Your task to perform on an android device: delete location history Image 0: 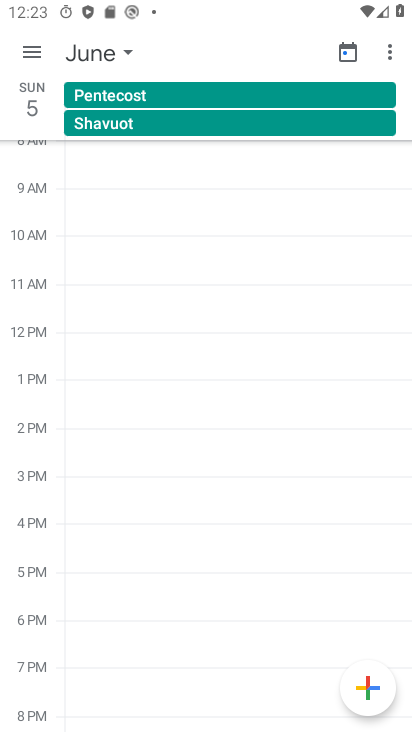
Step 0: press home button
Your task to perform on an android device: delete location history Image 1: 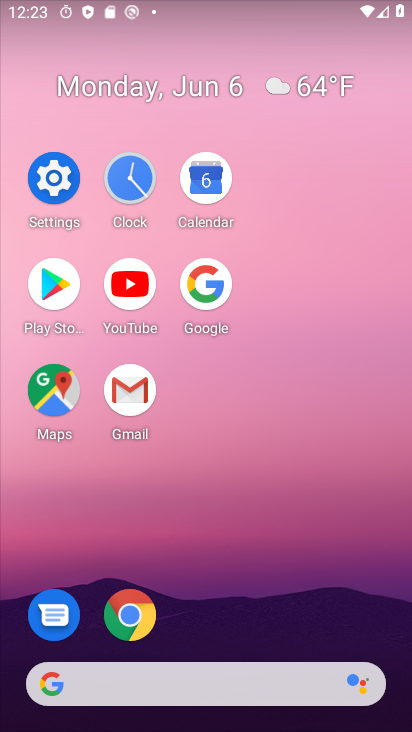
Step 1: click (55, 182)
Your task to perform on an android device: delete location history Image 2: 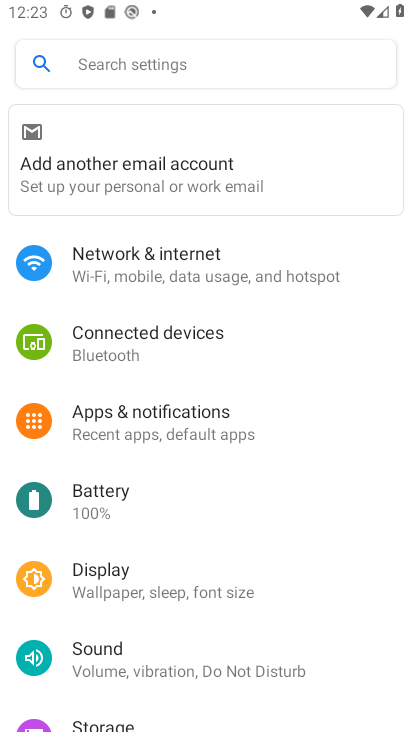
Step 2: drag from (194, 568) to (187, 238)
Your task to perform on an android device: delete location history Image 3: 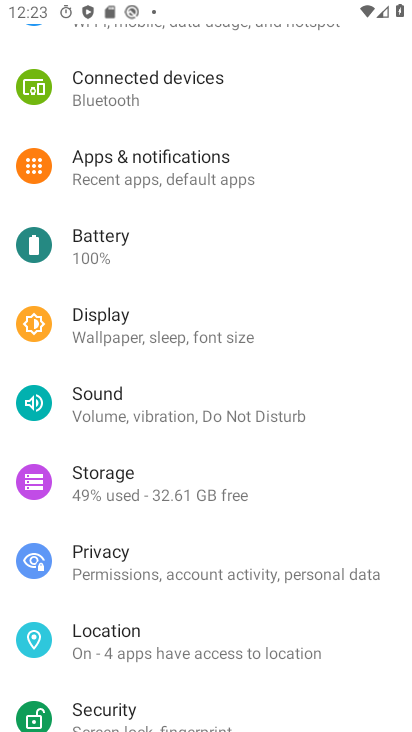
Step 3: click (168, 626)
Your task to perform on an android device: delete location history Image 4: 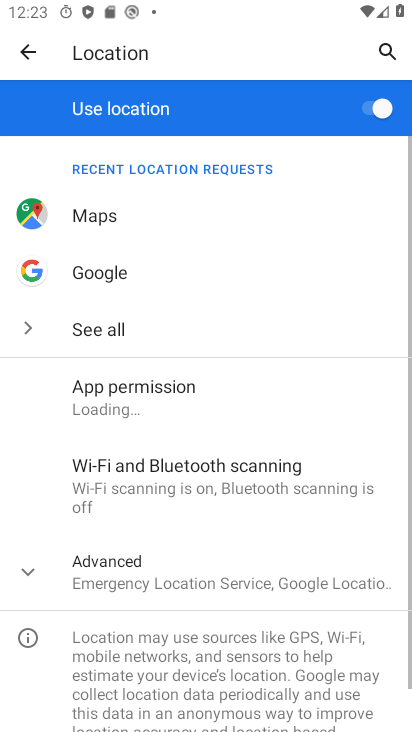
Step 4: click (184, 576)
Your task to perform on an android device: delete location history Image 5: 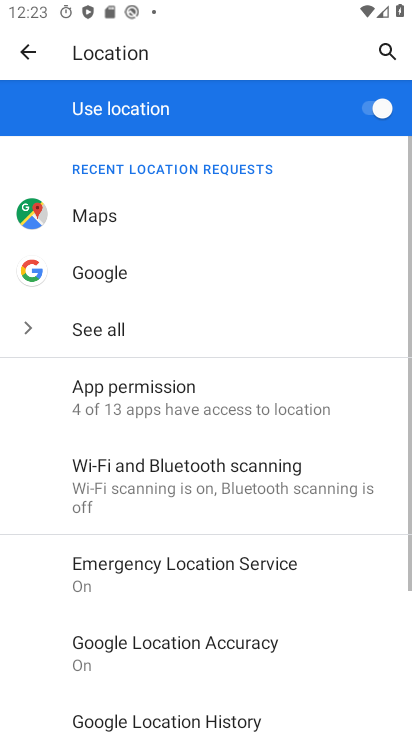
Step 5: drag from (194, 556) to (195, 266)
Your task to perform on an android device: delete location history Image 6: 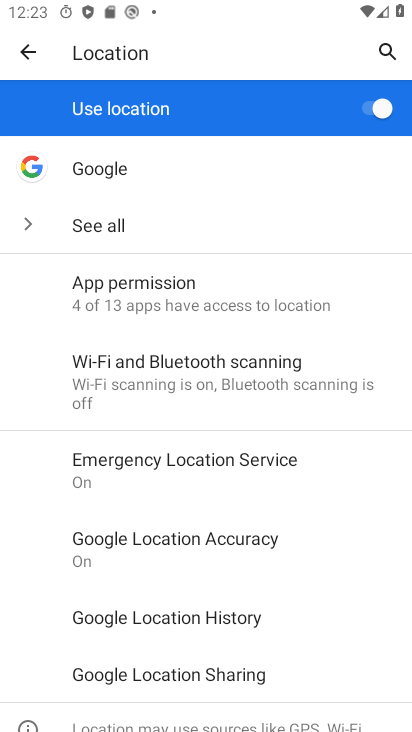
Step 6: click (179, 618)
Your task to perform on an android device: delete location history Image 7: 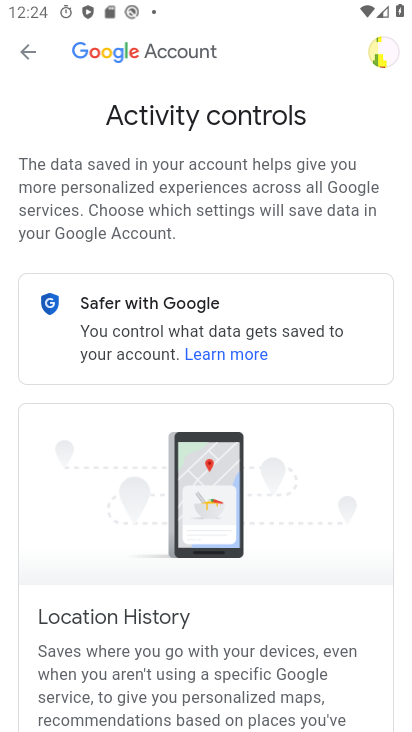
Step 7: drag from (310, 509) to (339, 147)
Your task to perform on an android device: delete location history Image 8: 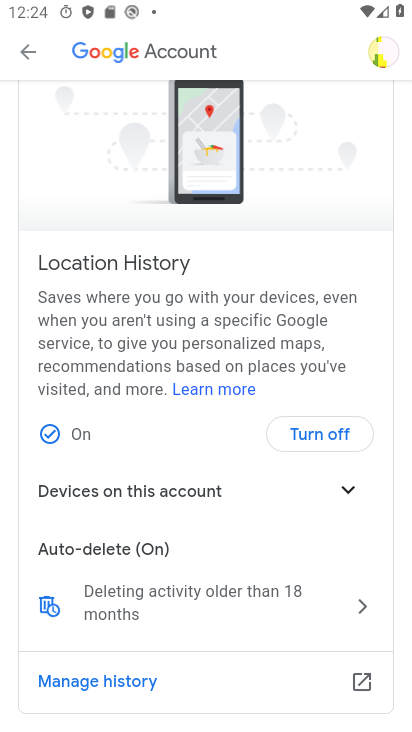
Step 8: drag from (329, 590) to (371, 222)
Your task to perform on an android device: delete location history Image 9: 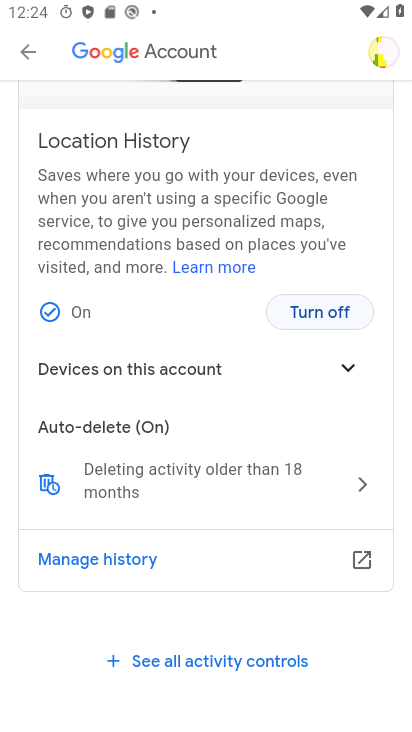
Step 9: click (306, 486)
Your task to perform on an android device: delete location history Image 10: 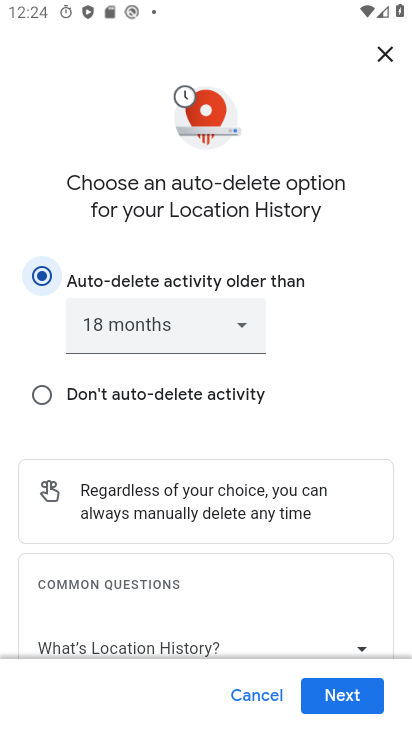
Step 10: drag from (297, 567) to (266, 285)
Your task to perform on an android device: delete location history Image 11: 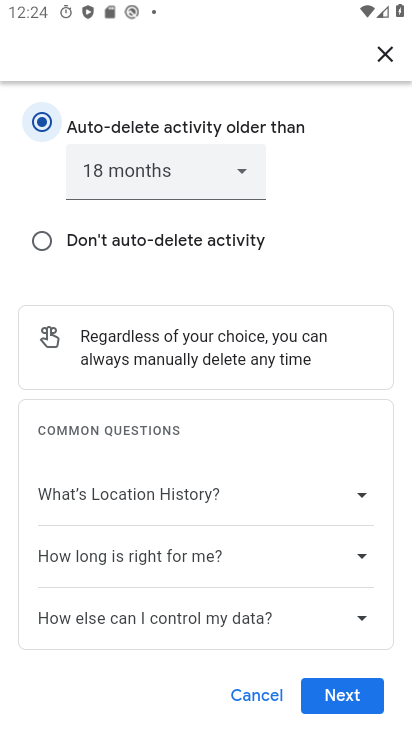
Step 11: click (311, 689)
Your task to perform on an android device: delete location history Image 12: 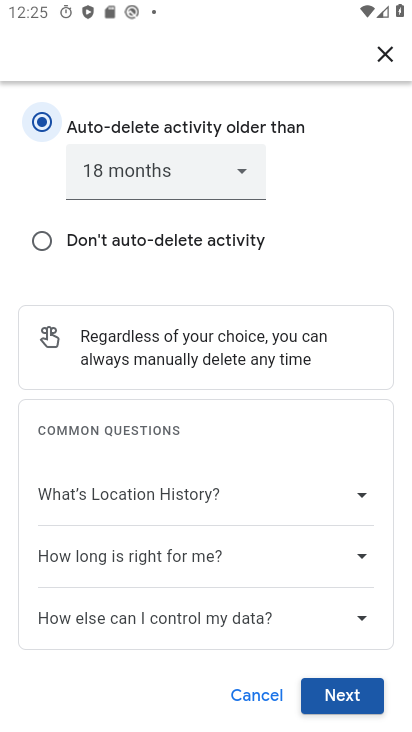
Step 12: click (363, 705)
Your task to perform on an android device: delete location history Image 13: 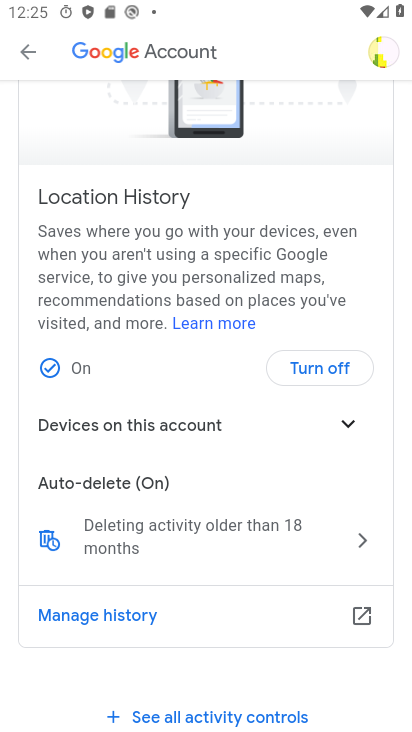
Step 13: task complete